Your task to perform on an android device: Open the calendar and show me this week's events? Image 0: 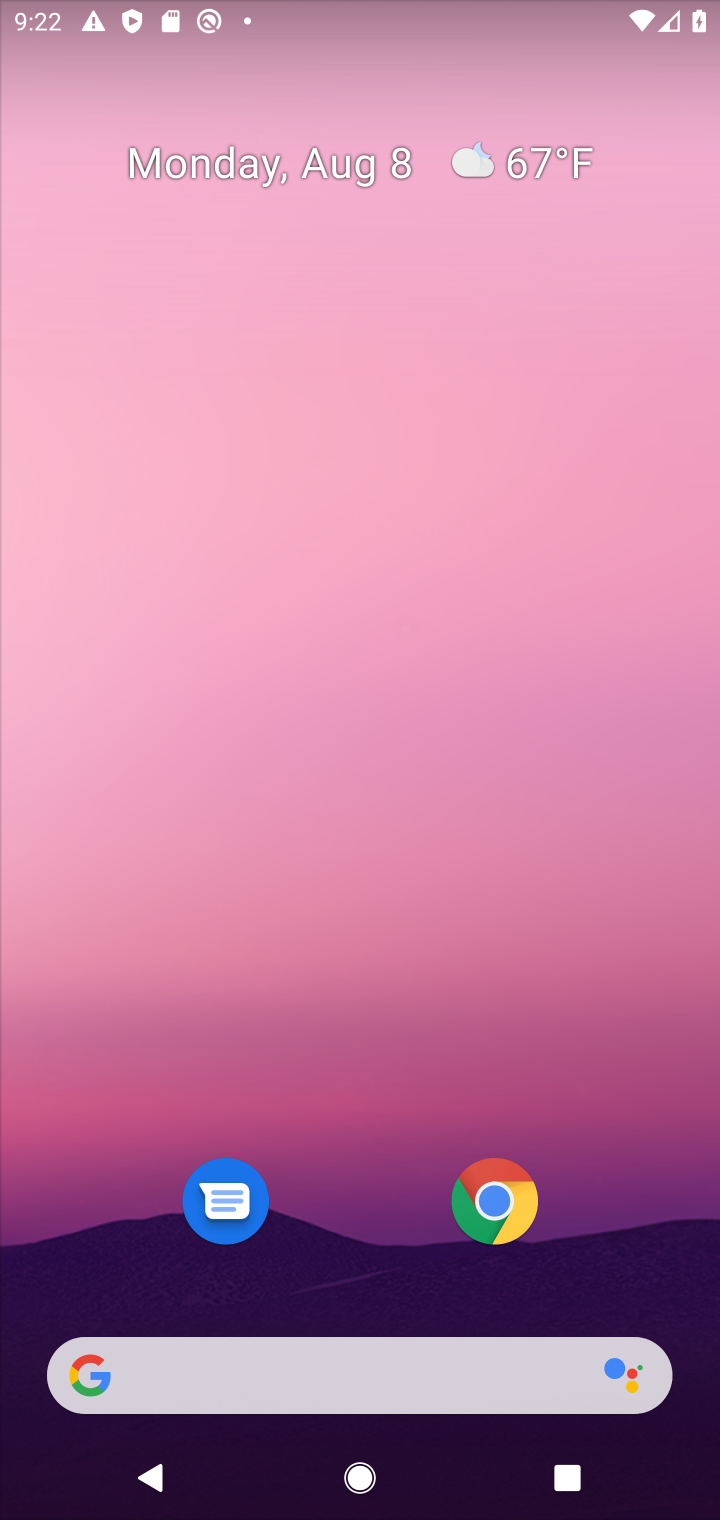
Step 0: press home button
Your task to perform on an android device: Open the calendar and show me this week's events? Image 1: 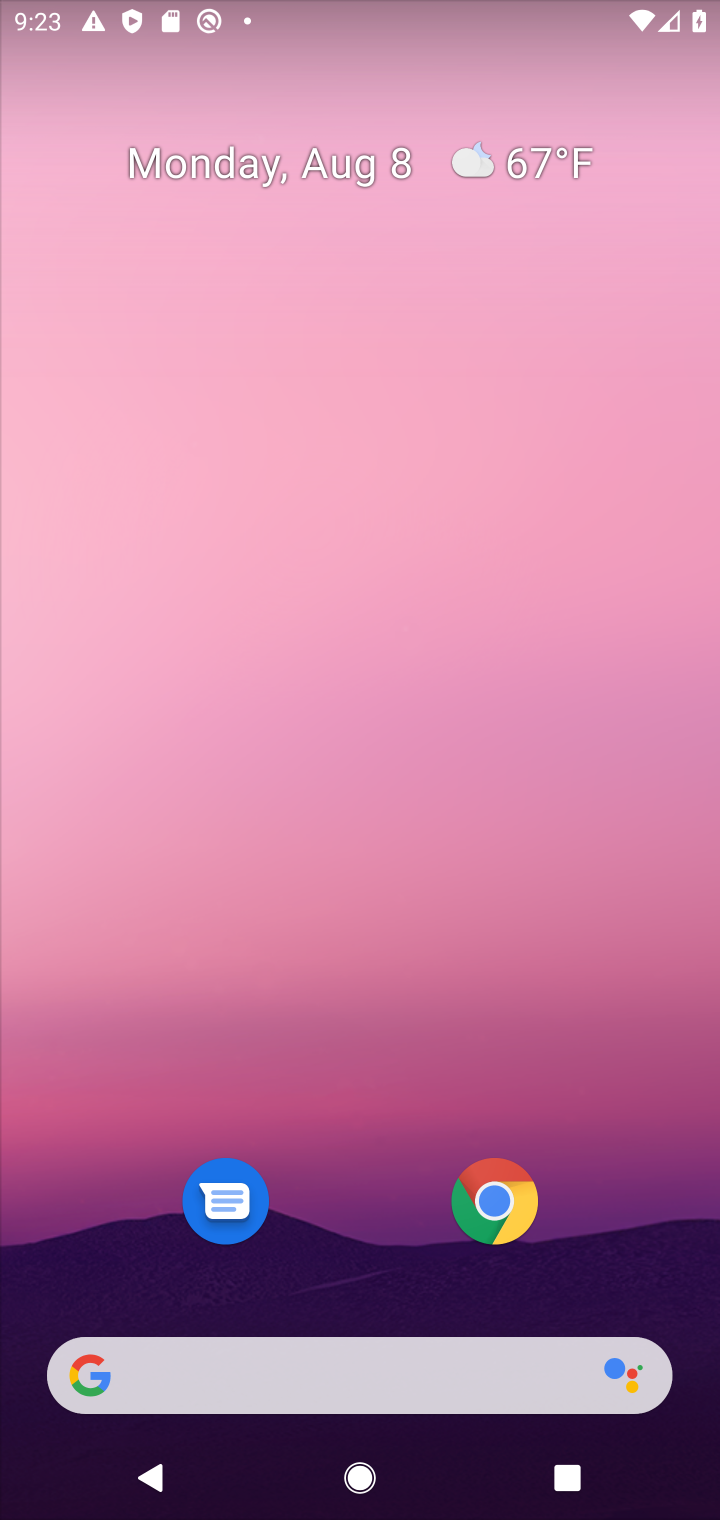
Step 1: drag from (351, 1220) to (417, 299)
Your task to perform on an android device: Open the calendar and show me this week's events? Image 2: 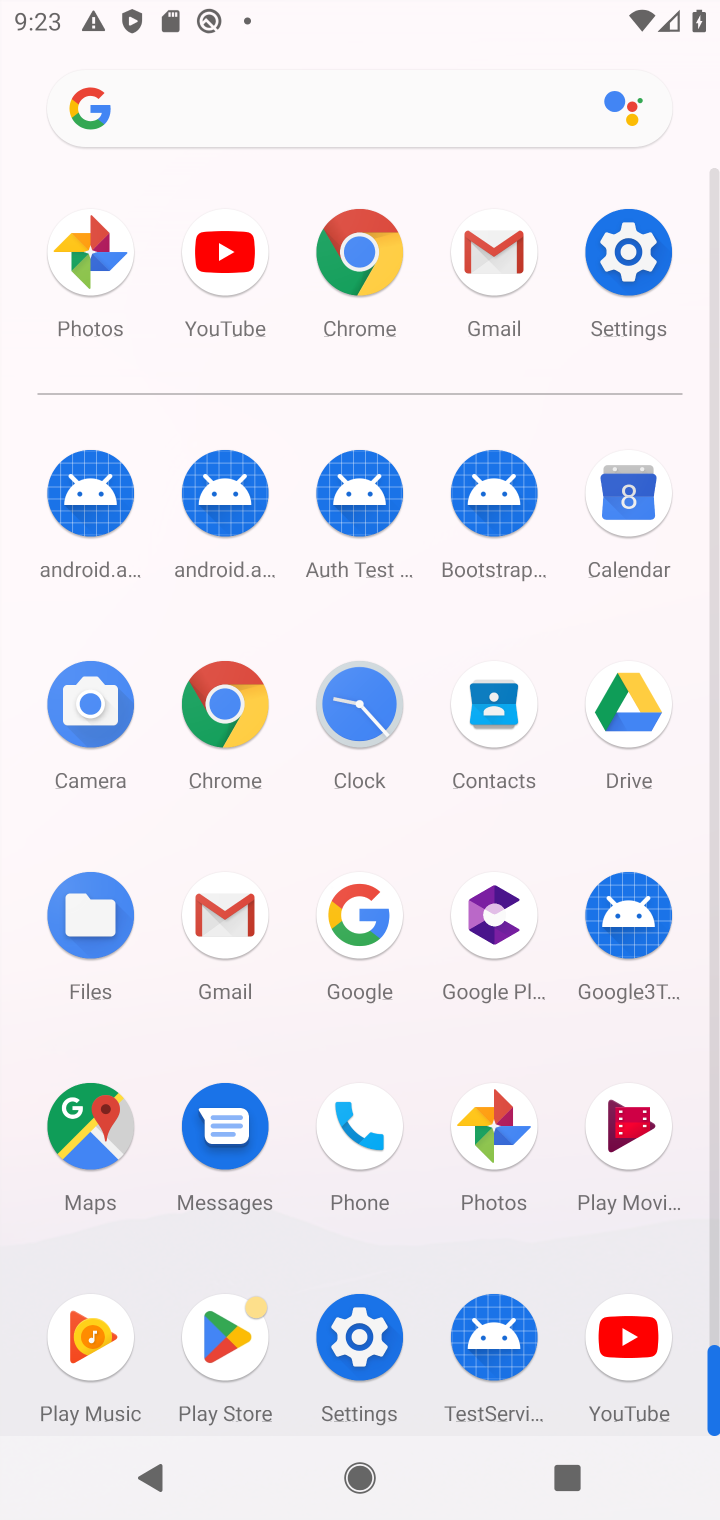
Step 2: click (632, 506)
Your task to perform on an android device: Open the calendar and show me this week's events? Image 3: 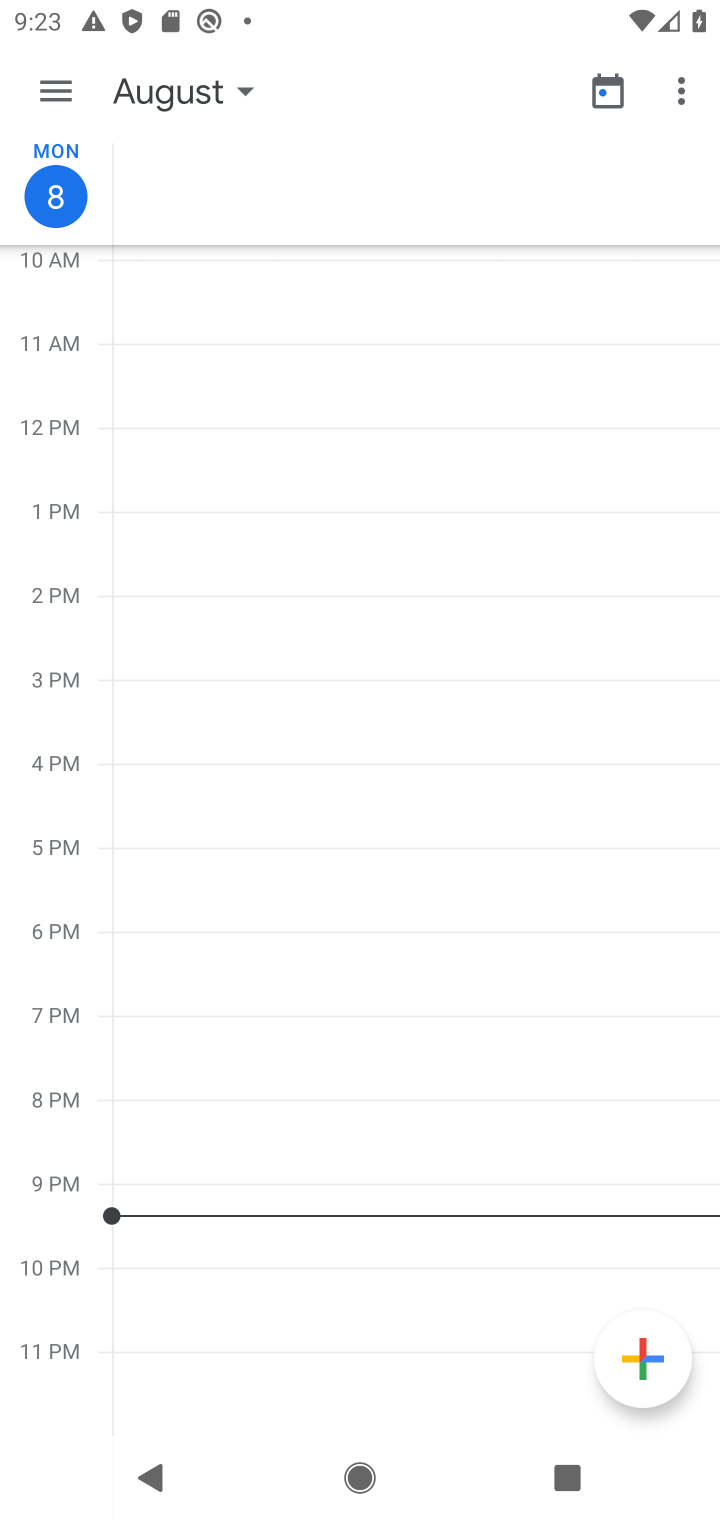
Step 3: click (51, 78)
Your task to perform on an android device: Open the calendar and show me this week's events? Image 4: 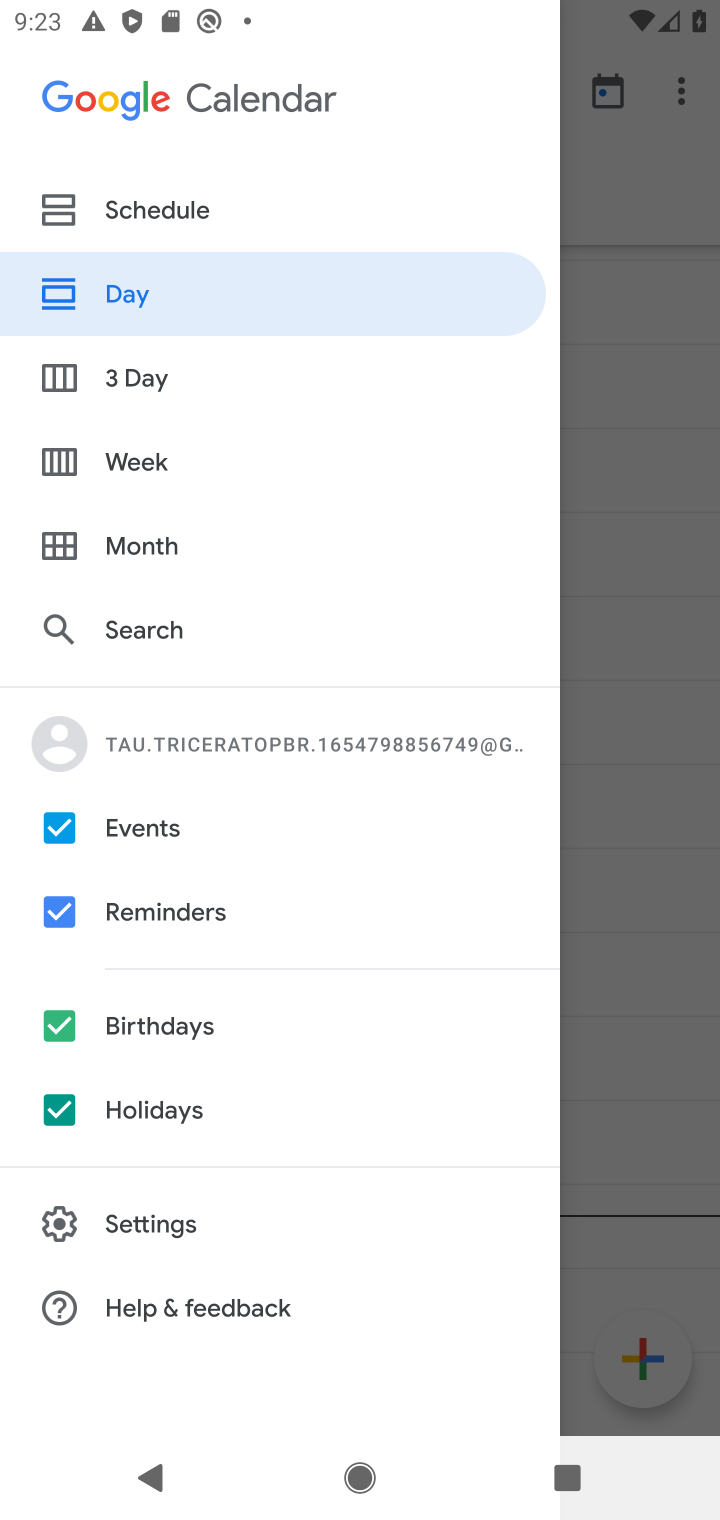
Step 4: click (161, 210)
Your task to perform on an android device: Open the calendar and show me this week's events? Image 5: 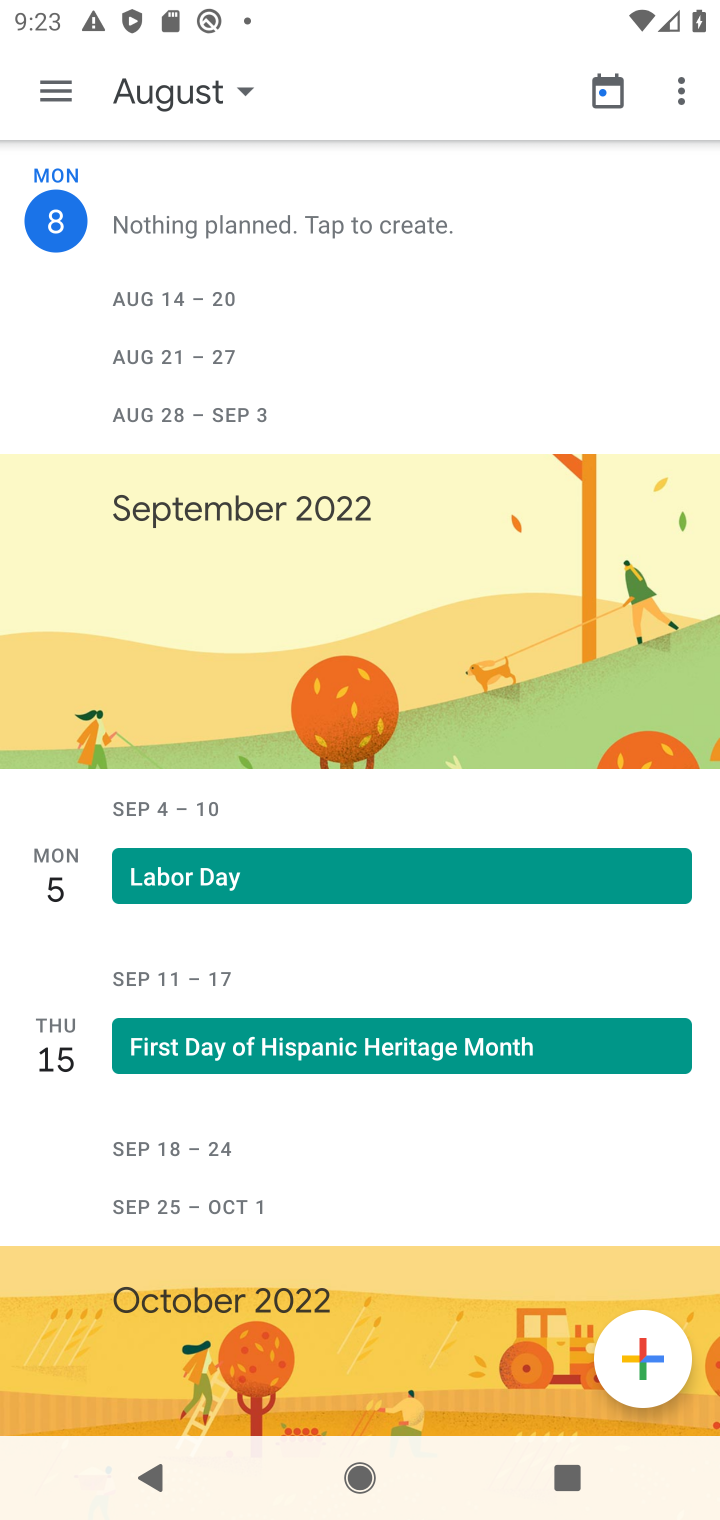
Step 5: task complete